Your task to perform on an android device: Is it going to rain today? Image 0: 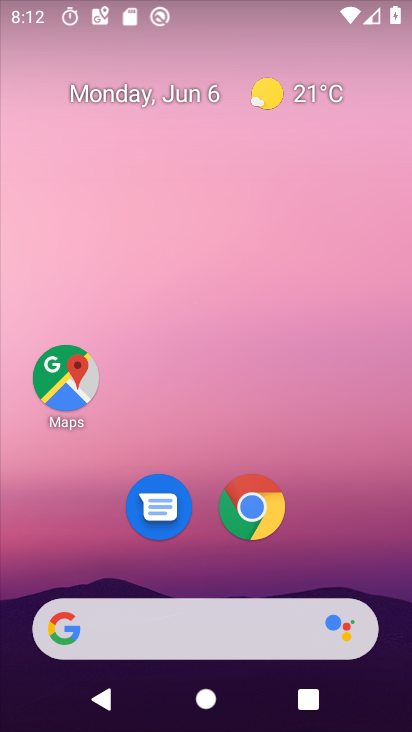
Step 0: click (261, 508)
Your task to perform on an android device: Is it going to rain today? Image 1: 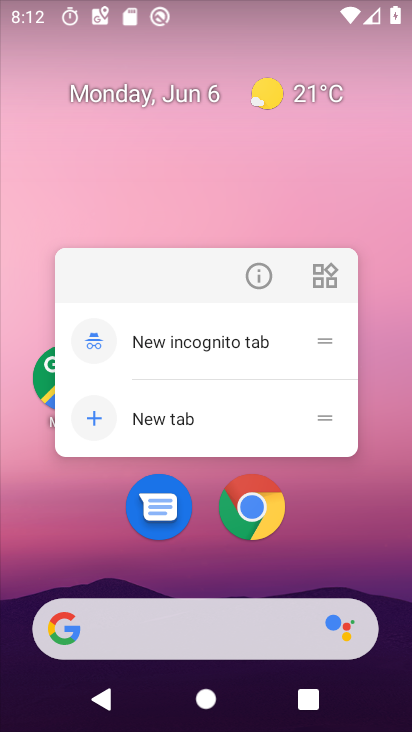
Step 1: click (261, 508)
Your task to perform on an android device: Is it going to rain today? Image 2: 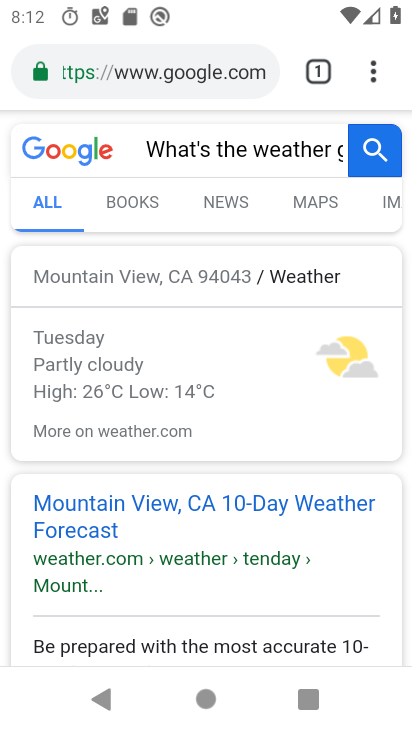
Step 2: click (230, 78)
Your task to perform on an android device: Is it going to rain today? Image 3: 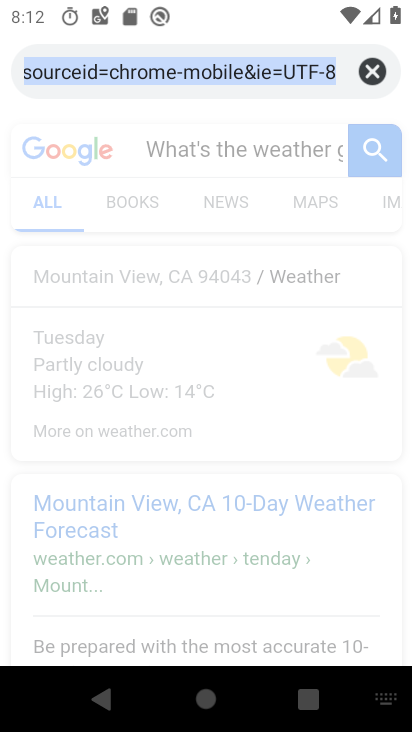
Step 3: type "Is it going to rain today?"
Your task to perform on an android device: Is it going to rain today? Image 4: 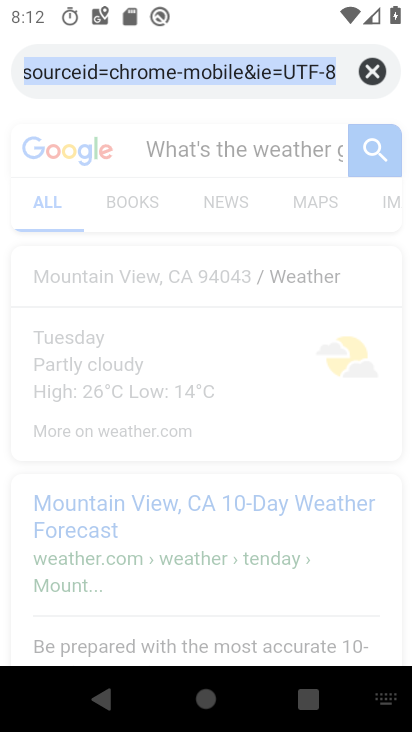
Step 4: click (193, 110)
Your task to perform on an android device: Is it going to rain today? Image 5: 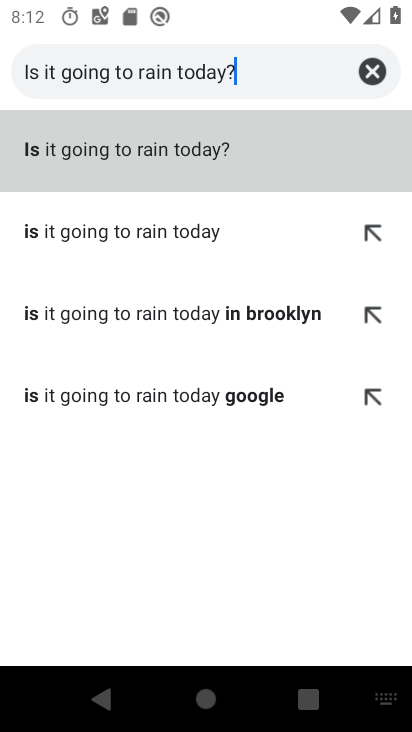
Step 5: type ""
Your task to perform on an android device: Is it going to rain today? Image 6: 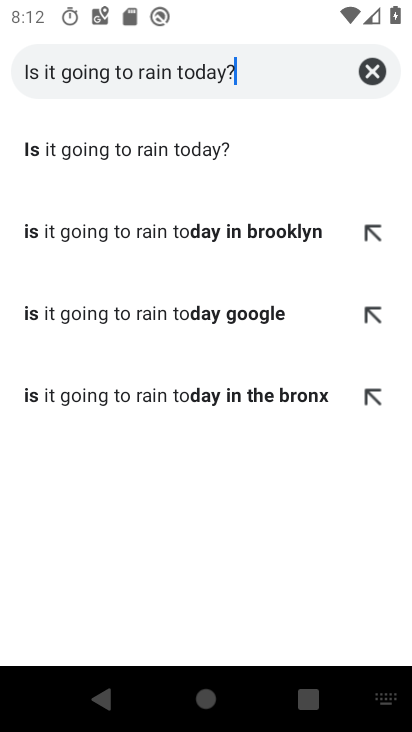
Step 6: click (205, 165)
Your task to perform on an android device: Is it going to rain today? Image 7: 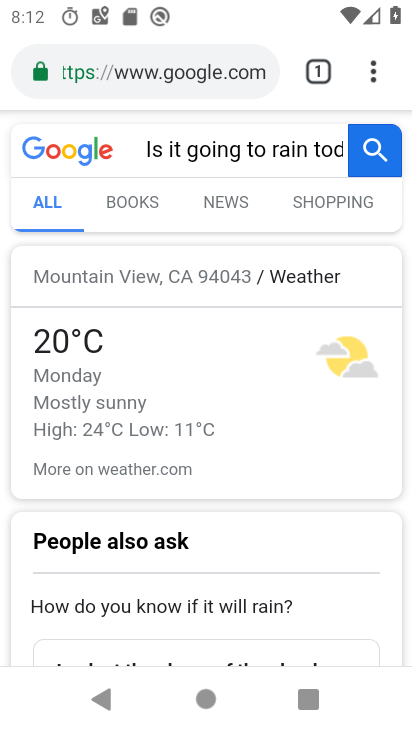
Step 7: task complete